Your task to perform on an android device: Do I have any events this weekend? Image 0: 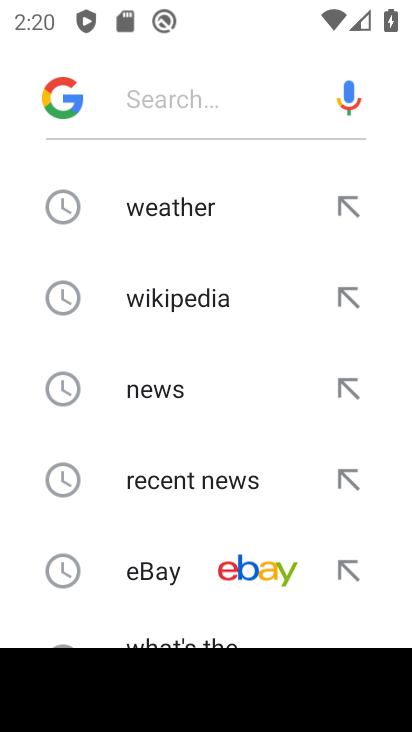
Step 0: press home button
Your task to perform on an android device: Do I have any events this weekend? Image 1: 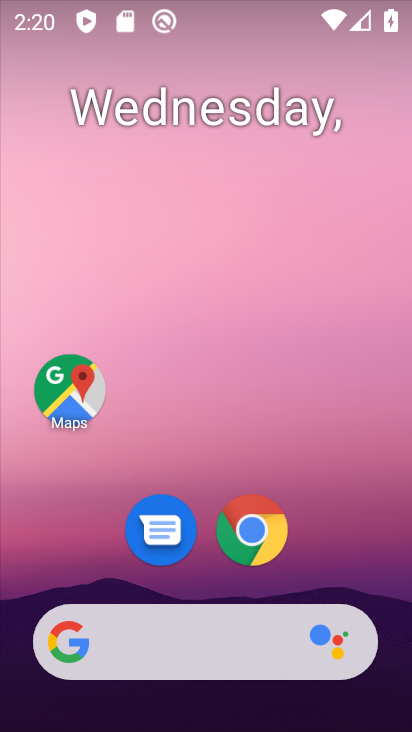
Step 1: drag from (149, 630) to (185, 67)
Your task to perform on an android device: Do I have any events this weekend? Image 2: 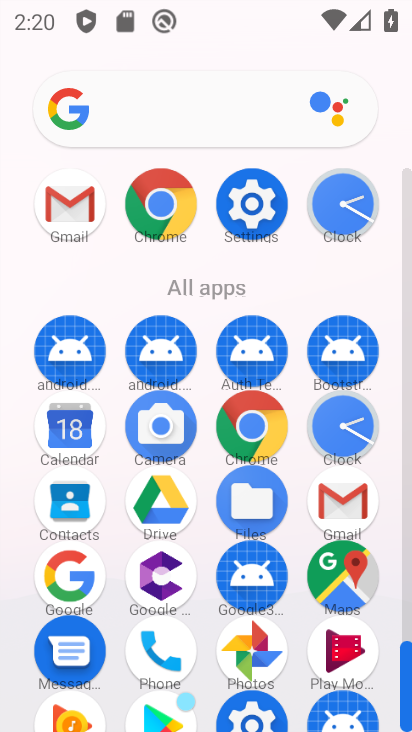
Step 2: click (64, 434)
Your task to perform on an android device: Do I have any events this weekend? Image 3: 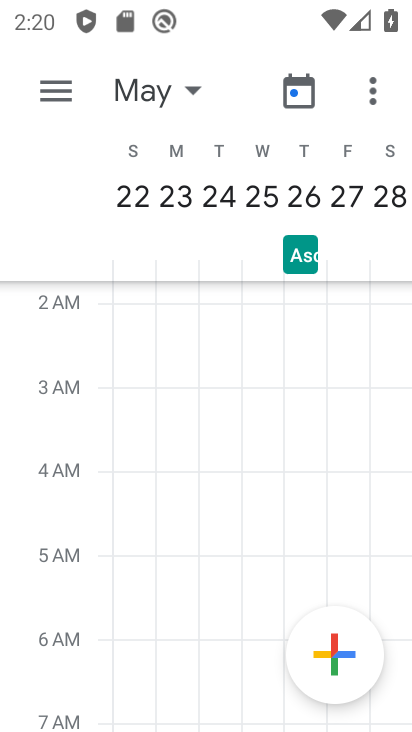
Step 3: click (62, 103)
Your task to perform on an android device: Do I have any events this weekend? Image 4: 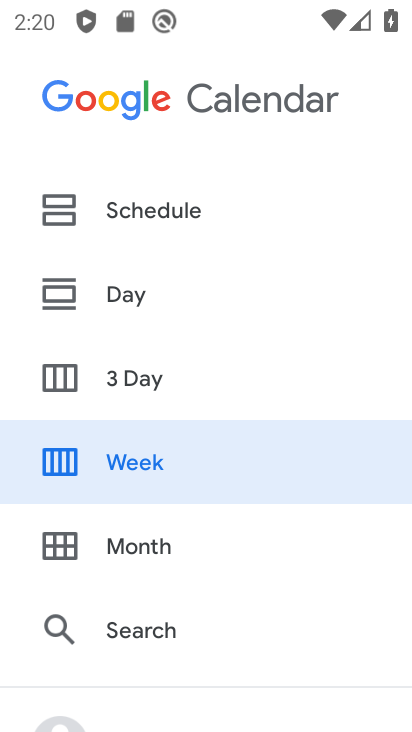
Step 4: click (167, 440)
Your task to perform on an android device: Do I have any events this weekend? Image 5: 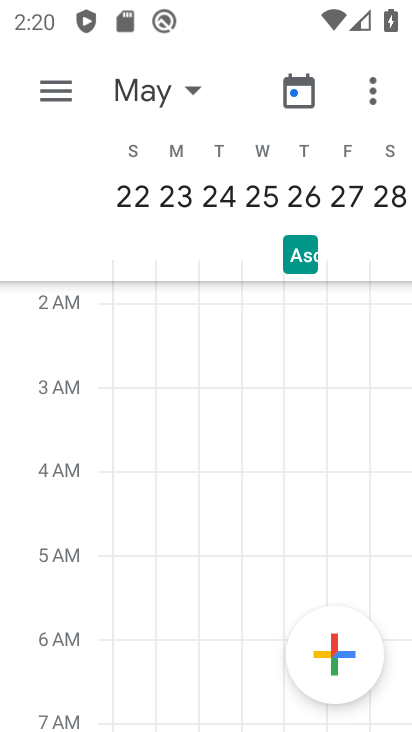
Step 5: task complete